Your task to perform on an android device: Go to Reddit.com Image 0: 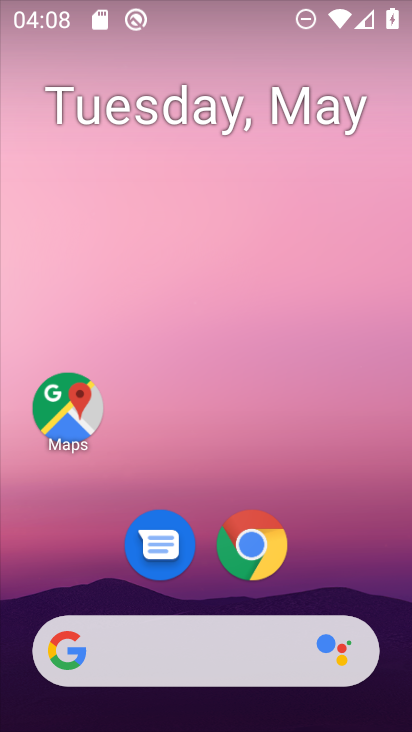
Step 0: click (250, 543)
Your task to perform on an android device: Go to Reddit.com Image 1: 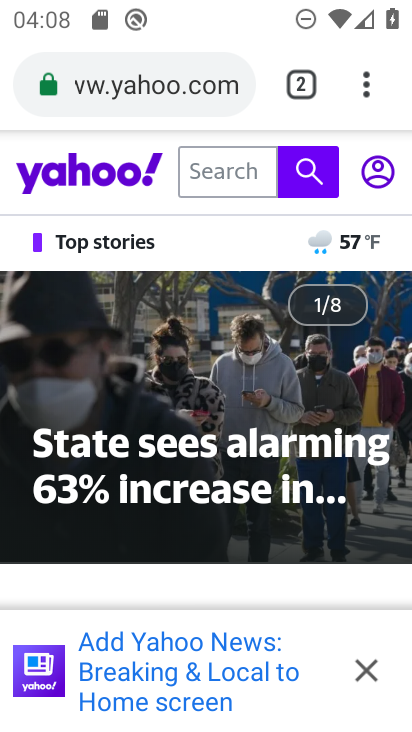
Step 1: click (156, 85)
Your task to perform on an android device: Go to Reddit.com Image 2: 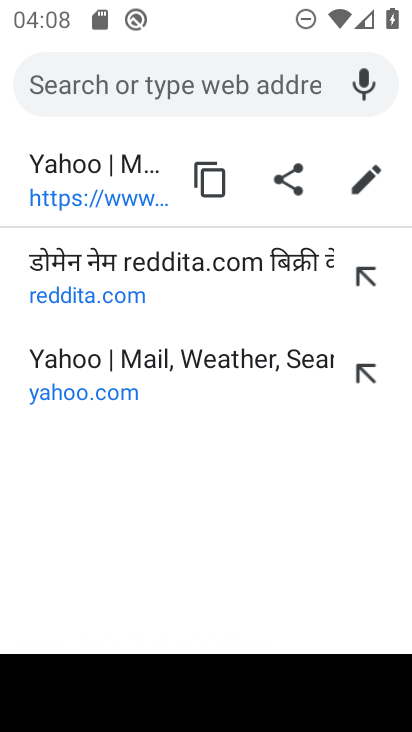
Step 2: type "reddit.com"
Your task to perform on an android device: Go to Reddit.com Image 3: 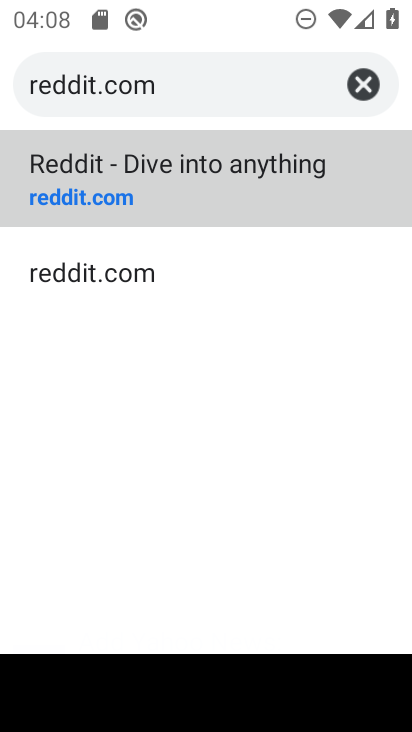
Step 3: click (106, 158)
Your task to perform on an android device: Go to Reddit.com Image 4: 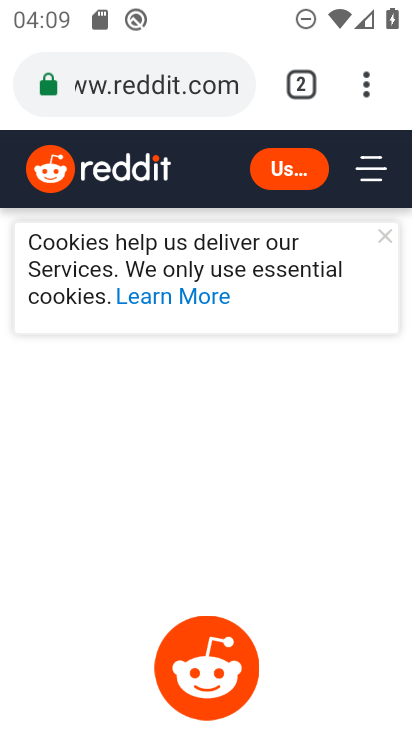
Step 4: task complete